Your task to perform on an android device: Go to internet settings Image 0: 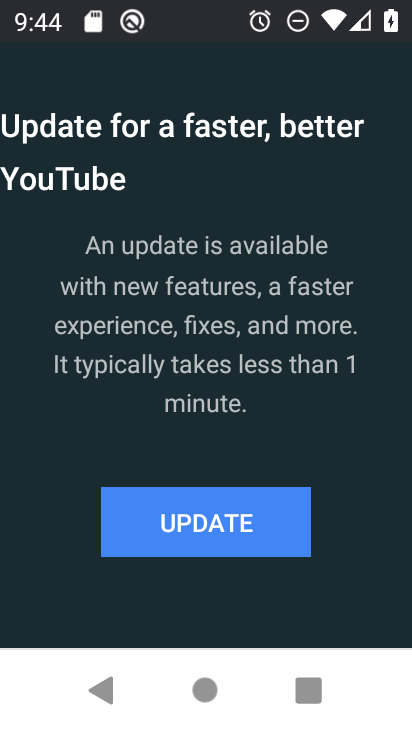
Step 0: press home button
Your task to perform on an android device: Go to internet settings Image 1: 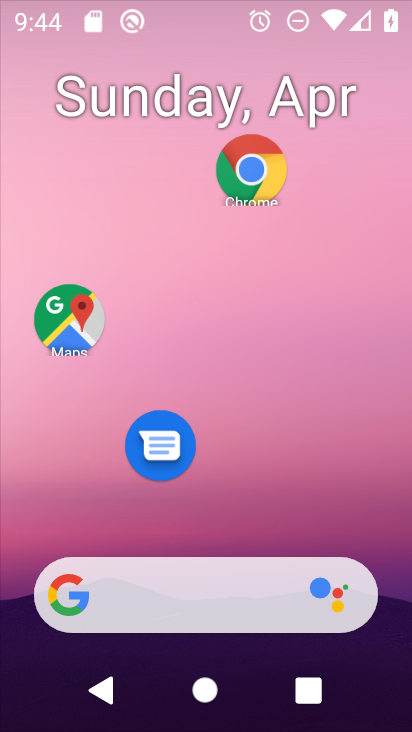
Step 1: drag from (253, 520) to (256, 49)
Your task to perform on an android device: Go to internet settings Image 2: 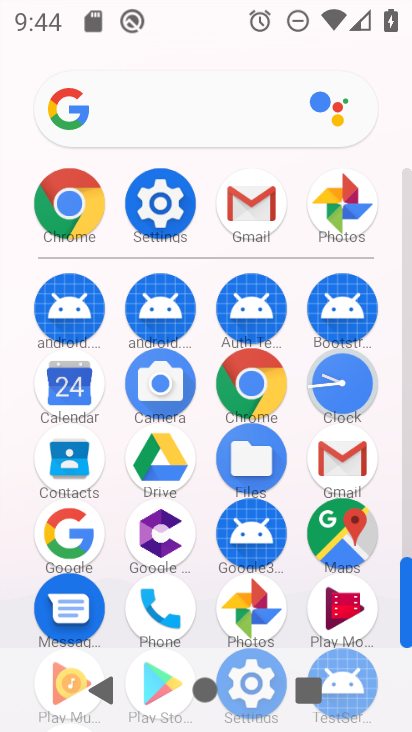
Step 2: click (160, 203)
Your task to perform on an android device: Go to internet settings Image 3: 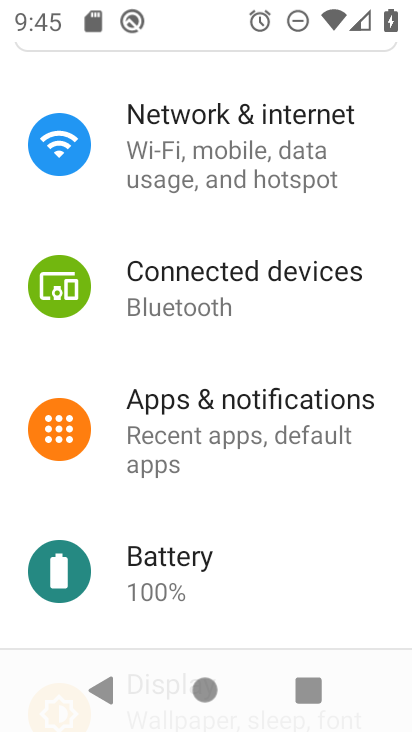
Step 3: click (243, 140)
Your task to perform on an android device: Go to internet settings Image 4: 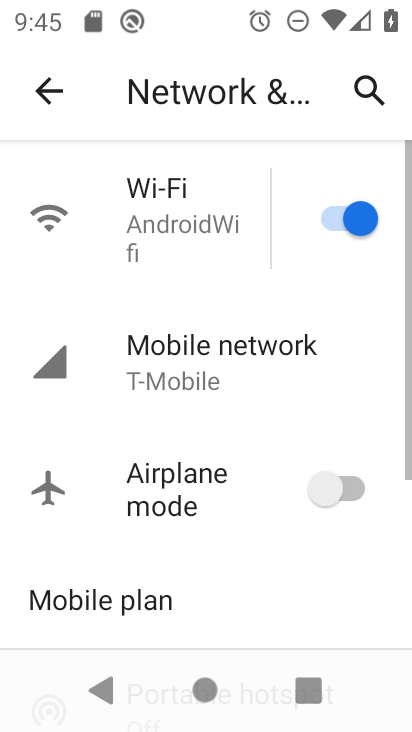
Step 4: click (175, 214)
Your task to perform on an android device: Go to internet settings Image 5: 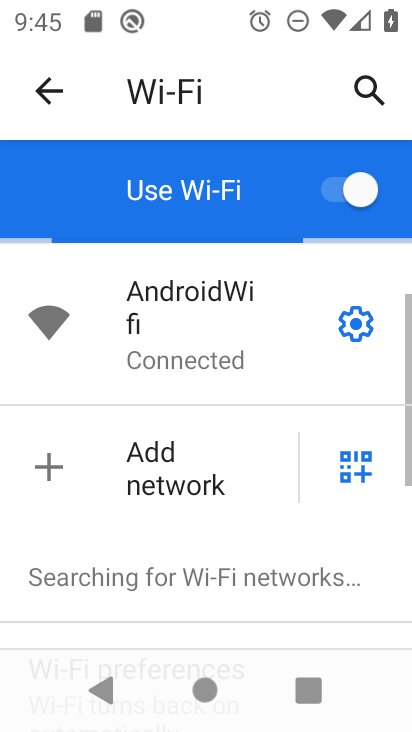
Step 5: click (352, 327)
Your task to perform on an android device: Go to internet settings Image 6: 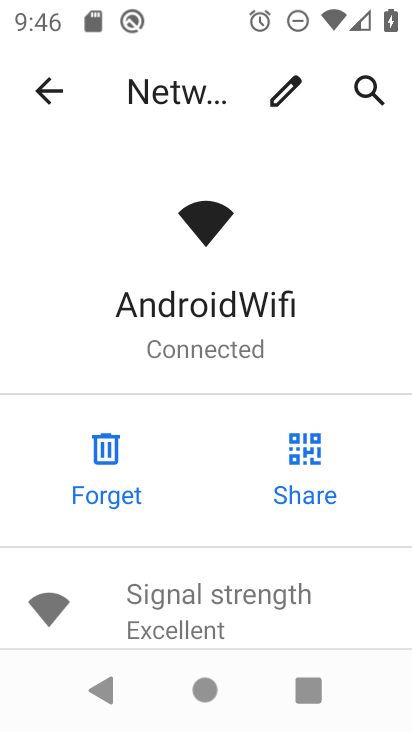
Step 6: task complete